Your task to perform on an android device: turn vacation reply on in the gmail app Image 0: 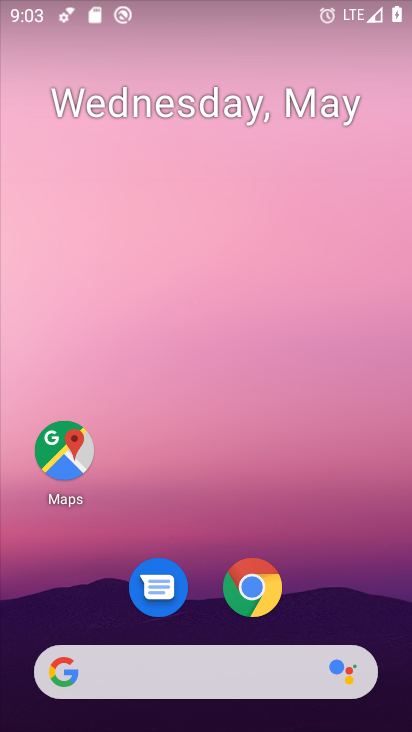
Step 0: drag from (225, 616) to (224, 239)
Your task to perform on an android device: turn vacation reply on in the gmail app Image 1: 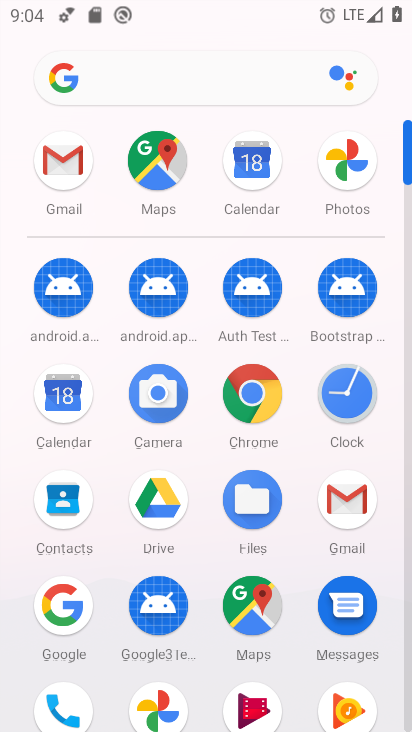
Step 1: click (342, 514)
Your task to perform on an android device: turn vacation reply on in the gmail app Image 2: 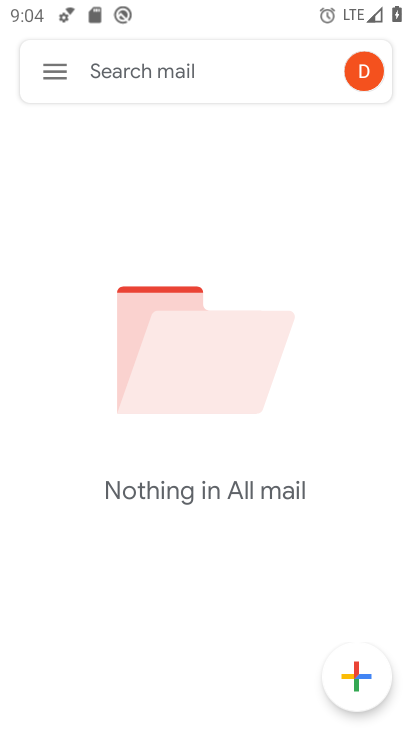
Step 2: click (47, 72)
Your task to perform on an android device: turn vacation reply on in the gmail app Image 3: 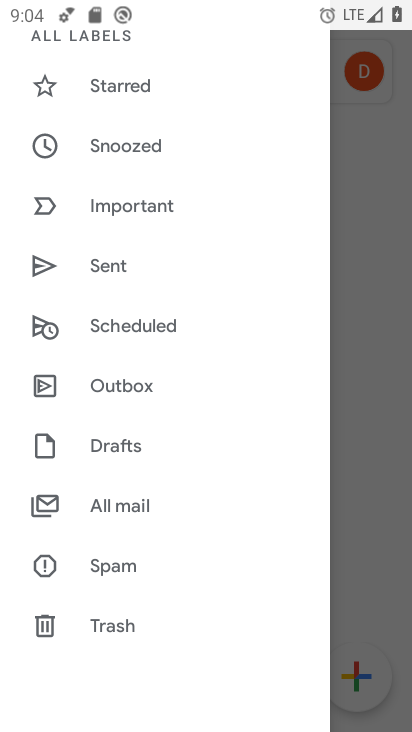
Step 3: drag from (118, 627) to (148, 278)
Your task to perform on an android device: turn vacation reply on in the gmail app Image 4: 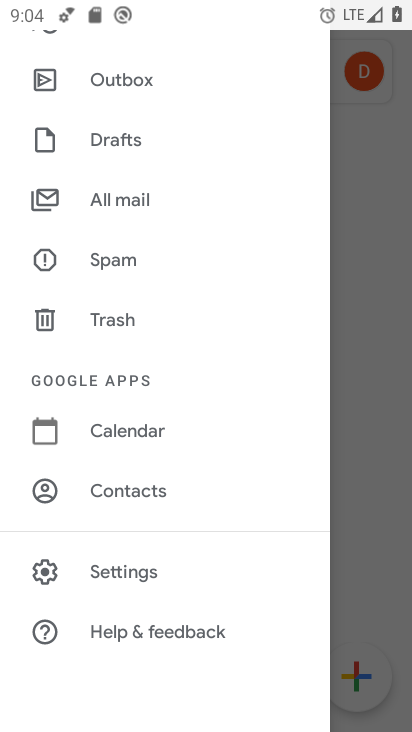
Step 4: click (137, 574)
Your task to perform on an android device: turn vacation reply on in the gmail app Image 5: 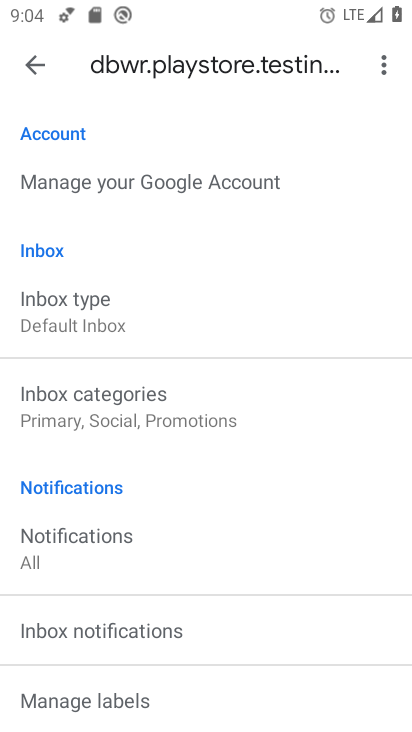
Step 5: click (112, 322)
Your task to perform on an android device: turn vacation reply on in the gmail app Image 6: 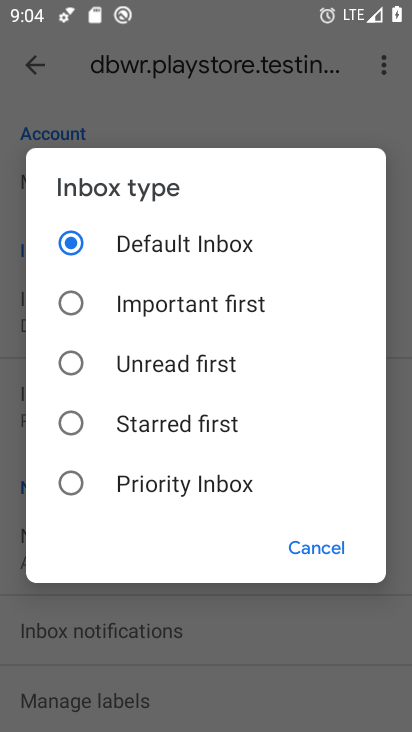
Step 6: click (328, 540)
Your task to perform on an android device: turn vacation reply on in the gmail app Image 7: 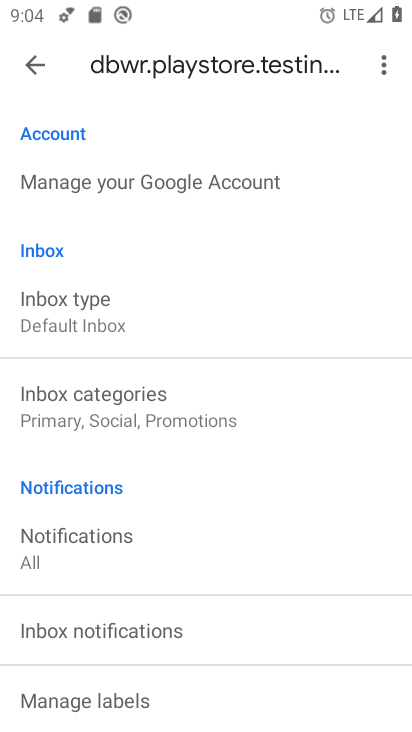
Step 7: drag from (239, 664) to (234, 234)
Your task to perform on an android device: turn vacation reply on in the gmail app Image 8: 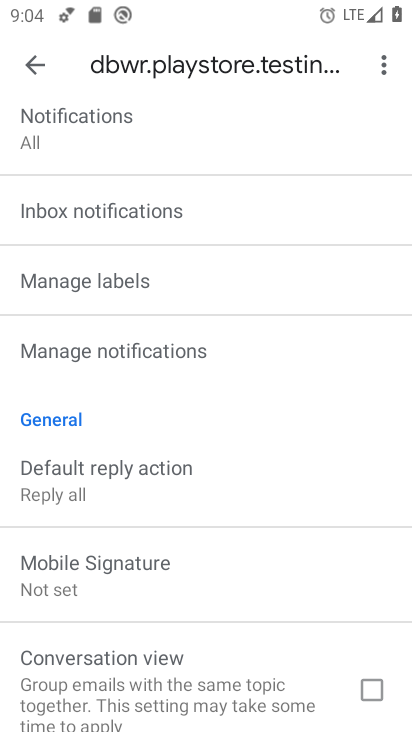
Step 8: drag from (136, 663) to (163, 373)
Your task to perform on an android device: turn vacation reply on in the gmail app Image 9: 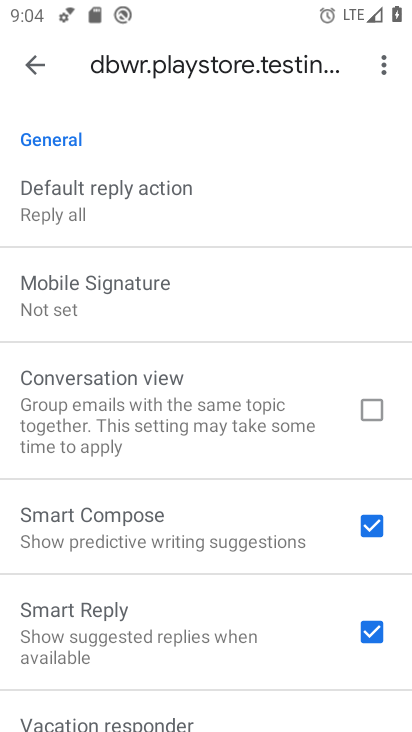
Step 9: drag from (171, 694) to (186, 477)
Your task to perform on an android device: turn vacation reply on in the gmail app Image 10: 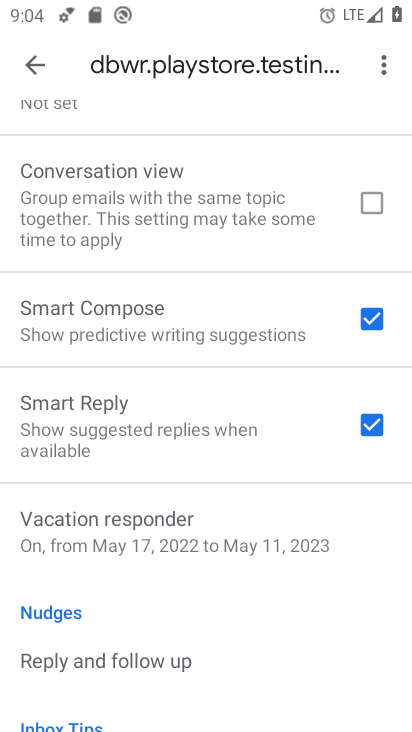
Step 10: click (161, 551)
Your task to perform on an android device: turn vacation reply on in the gmail app Image 11: 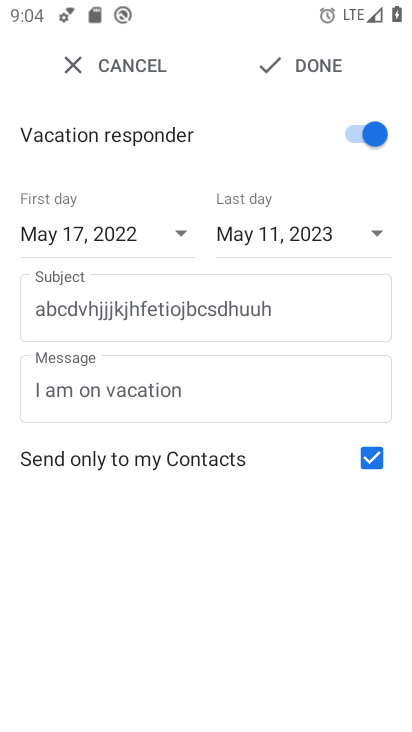
Step 11: task complete